Your task to perform on an android device: change your default location settings in chrome Image 0: 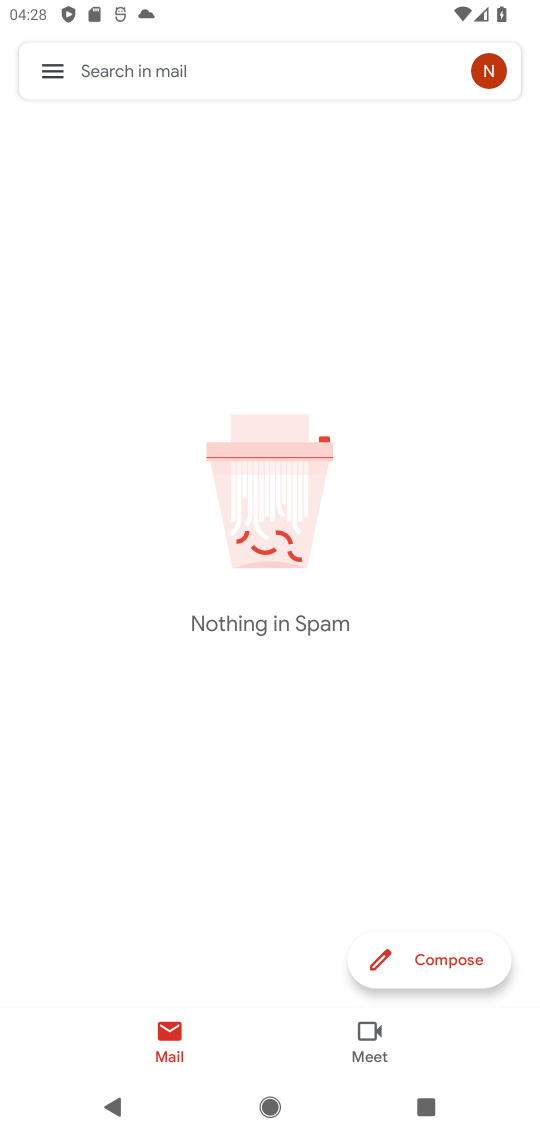
Step 0: press home button
Your task to perform on an android device: change your default location settings in chrome Image 1: 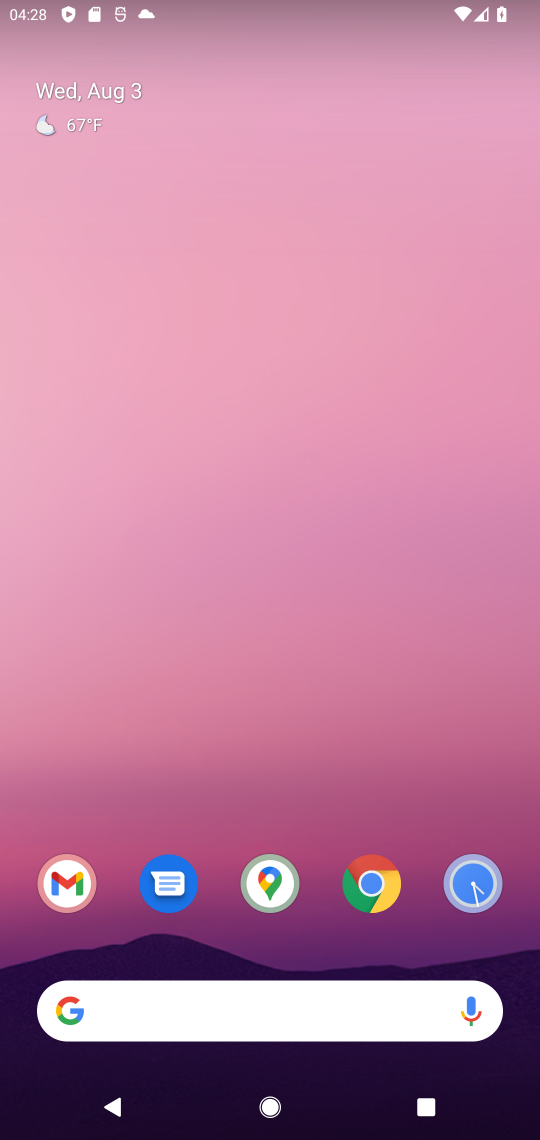
Step 1: click (381, 888)
Your task to perform on an android device: change your default location settings in chrome Image 2: 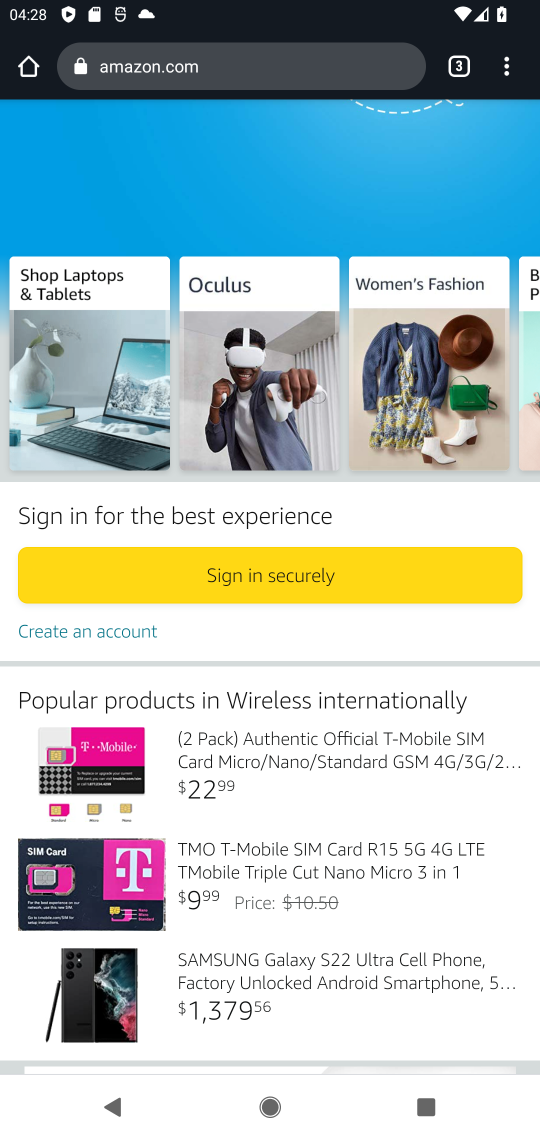
Step 2: click (507, 64)
Your task to perform on an android device: change your default location settings in chrome Image 3: 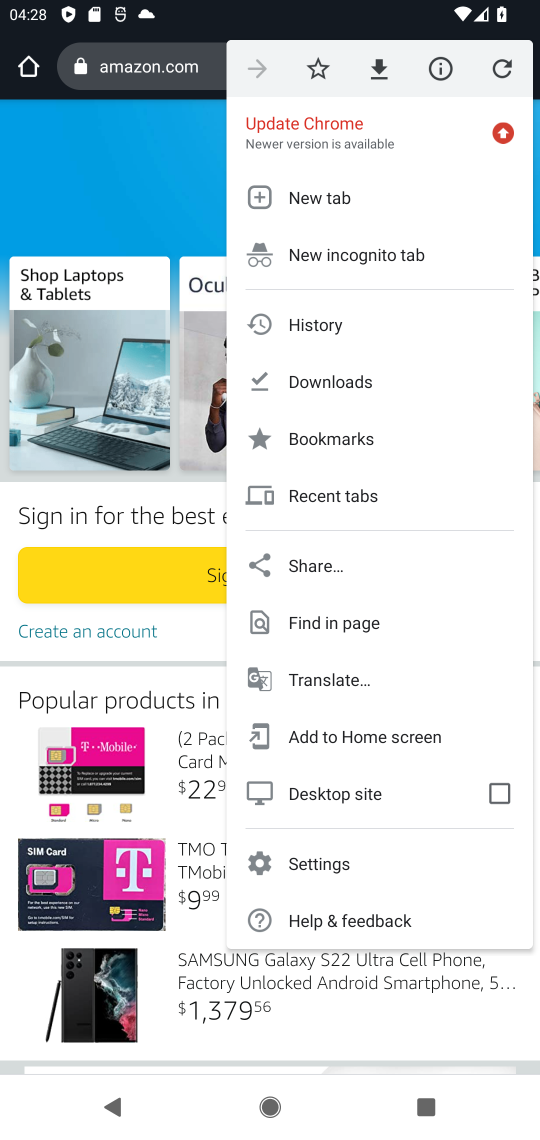
Step 3: click (325, 857)
Your task to perform on an android device: change your default location settings in chrome Image 4: 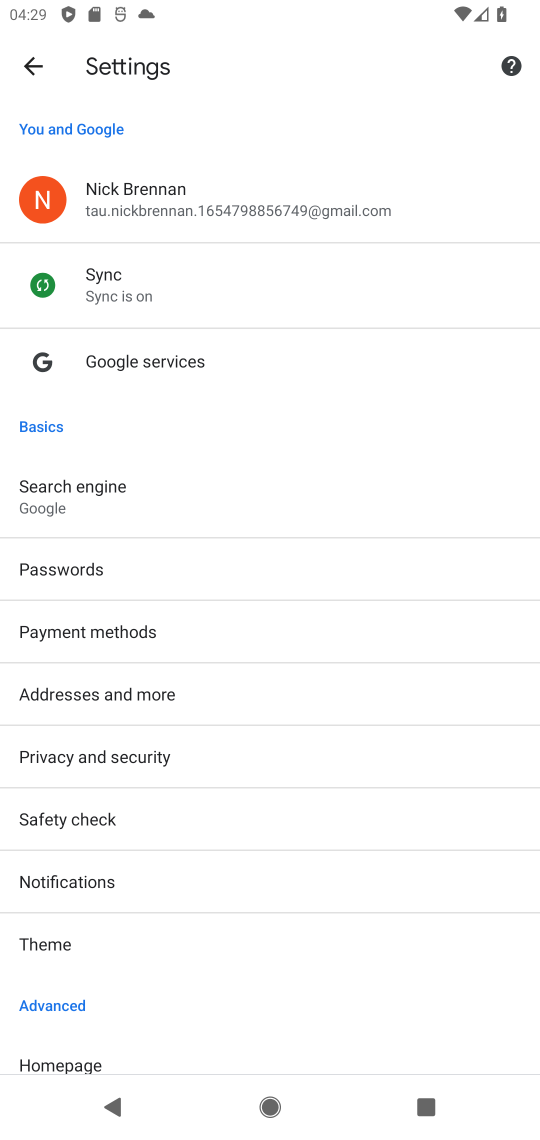
Step 4: drag from (121, 868) to (156, 693)
Your task to perform on an android device: change your default location settings in chrome Image 5: 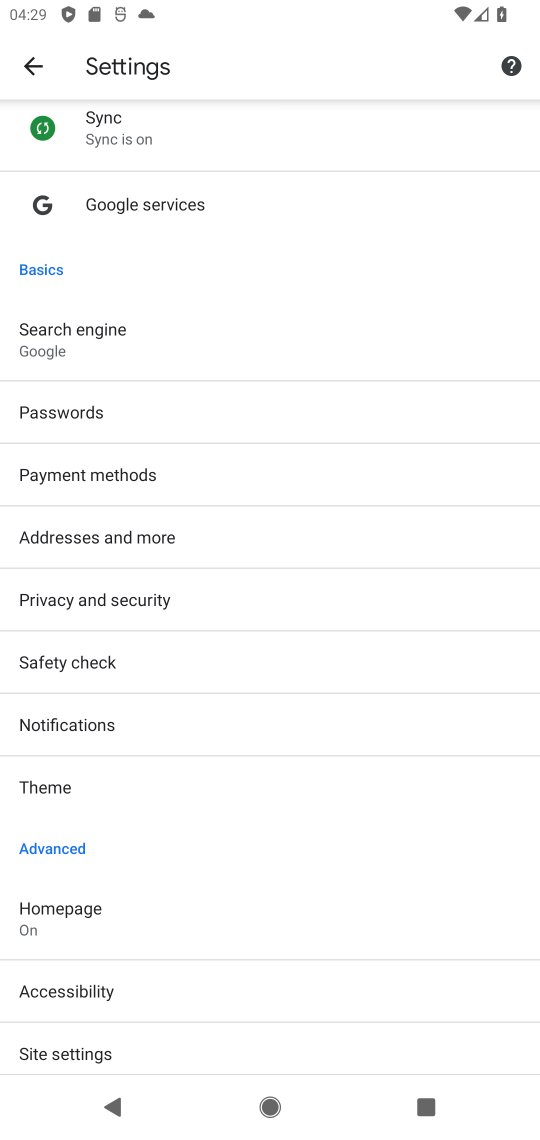
Step 5: drag from (95, 1046) to (127, 891)
Your task to perform on an android device: change your default location settings in chrome Image 6: 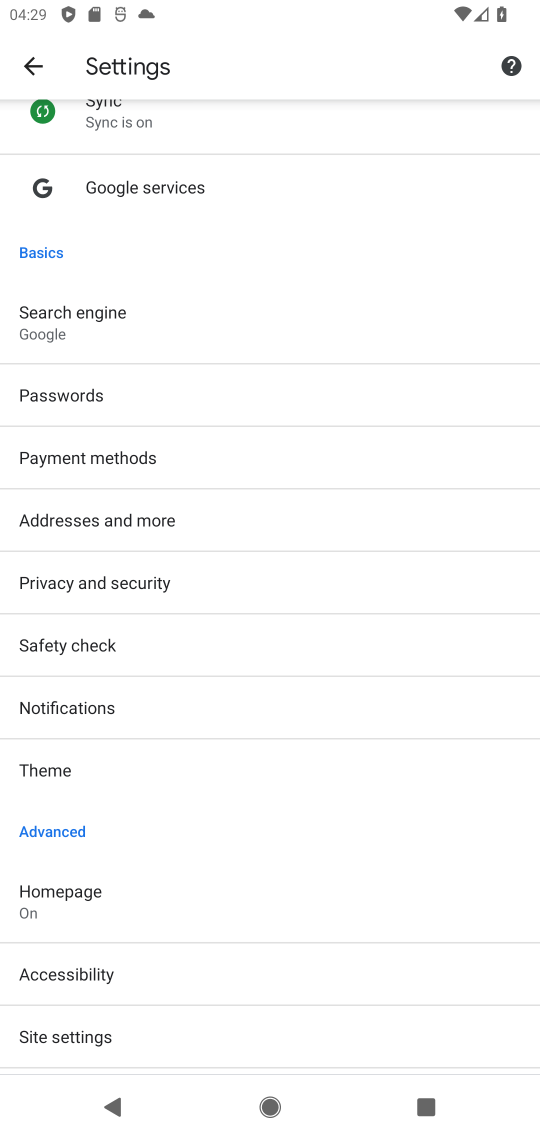
Step 6: click (89, 1028)
Your task to perform on an android device: change your default location settings in chrome Image 7: 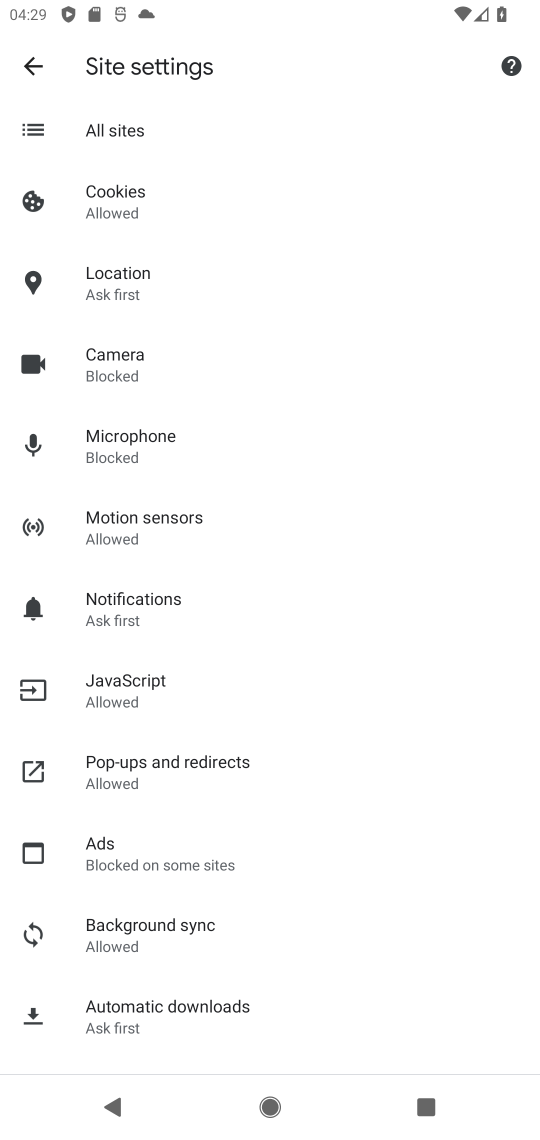
Step 7: click (135, 300)
Your task to perform on an android device: change your default location settings in chrome Image 8: 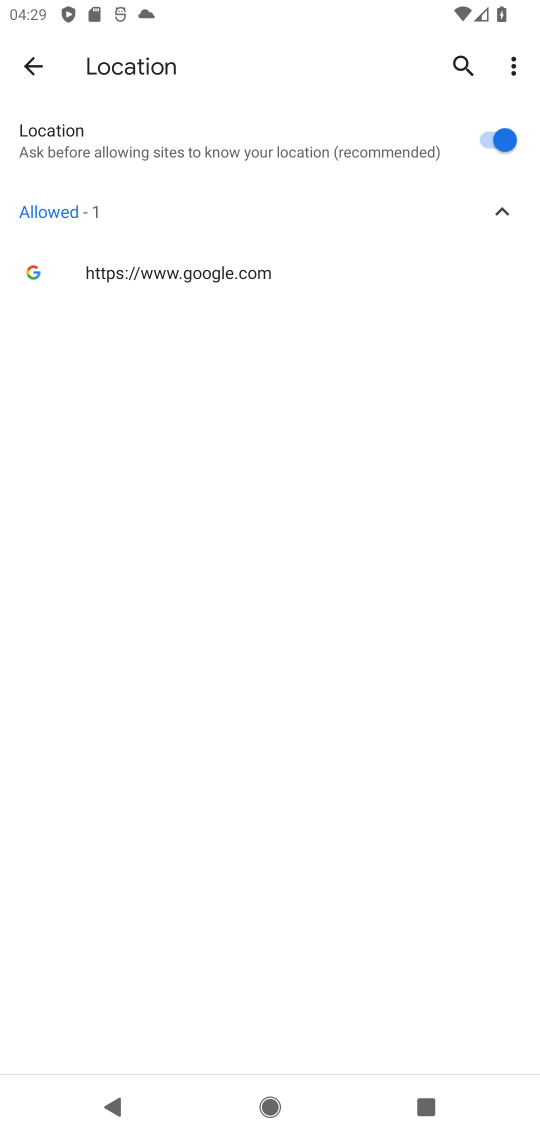
Step 8: click (460, 140)
Your task to perform on an android device: change your default location settings in chrome Image 9: 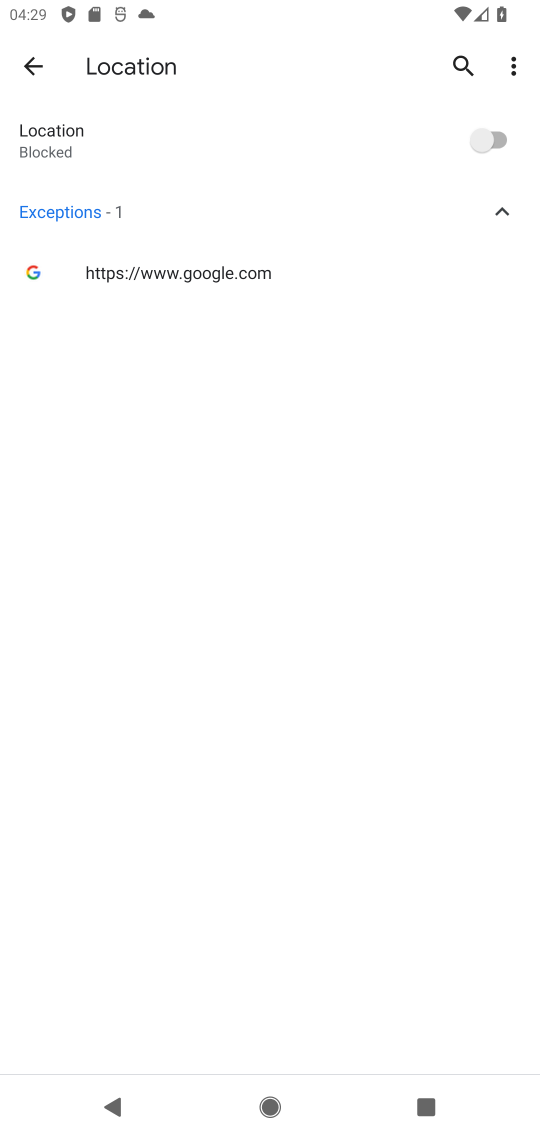
Step 9: task complete